Your task to perform on an android device: Open ESPN.com Image 0: 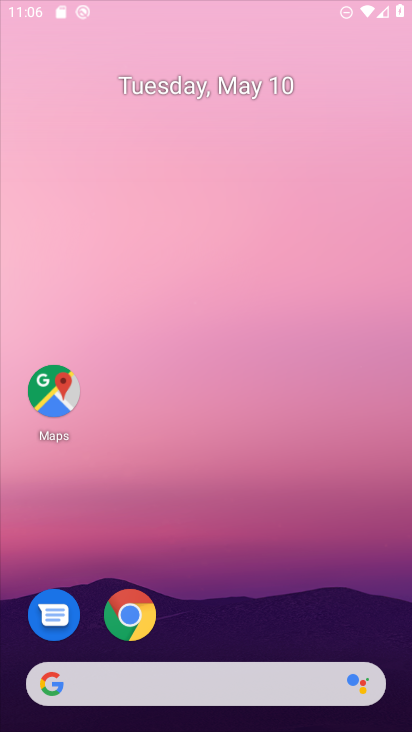
Step 0: click (283, 86)
Your task to perform on an android device: Open ESPN.com Image 1: 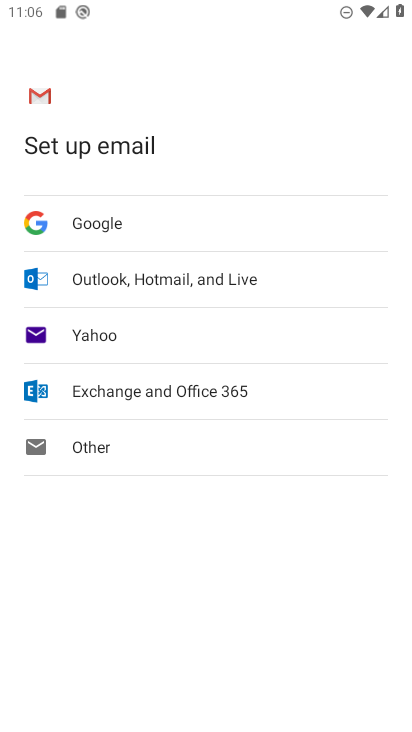
Step 1: press home button
Your task to perform on an android device: Open ESPN.com Image 2: 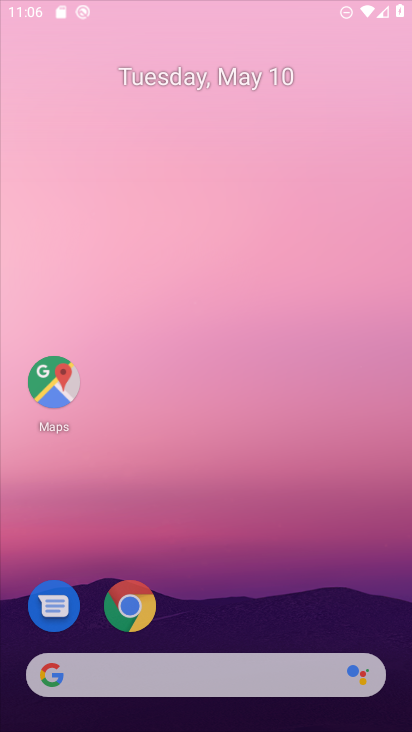
Step 2: drag from (194, 518) to (264, 66)
Your task to perform on an android device: Open ESPN.com Image 3: 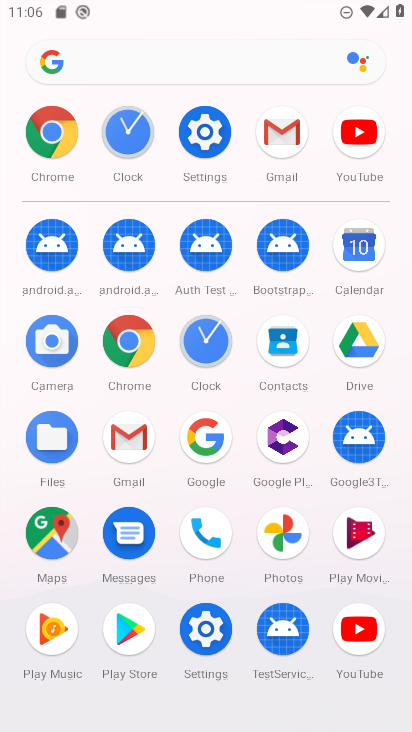
Step 3: click (238, 55)
Your task to perform on an android device: Open ESPN.com Image 4: 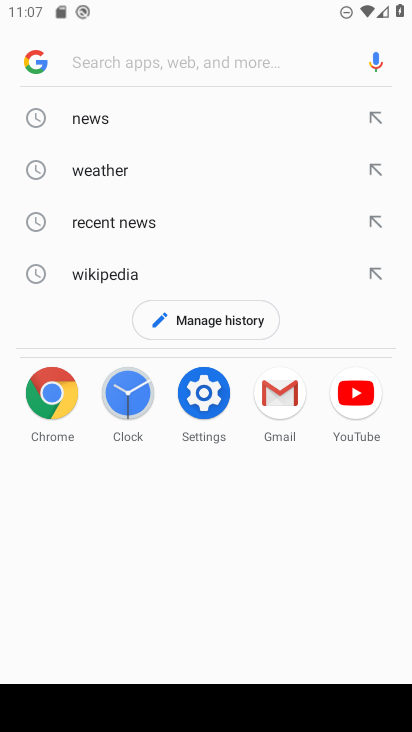
Step 4: type "espn"
Your task to perform on an android device: Open ESPN.com Image 5: 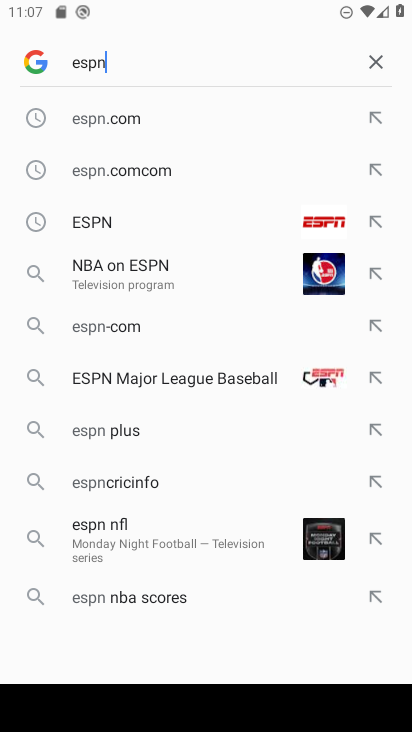
Step 5: click (126, 124)
Your task to perform on an android device: Open ESPN.com Image 6: 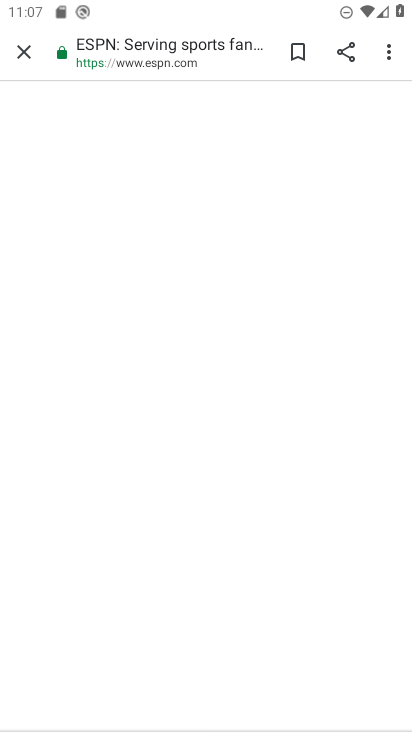
Step 6: task complete